Your task to perform on an android device: Go to Android settings Image 0: 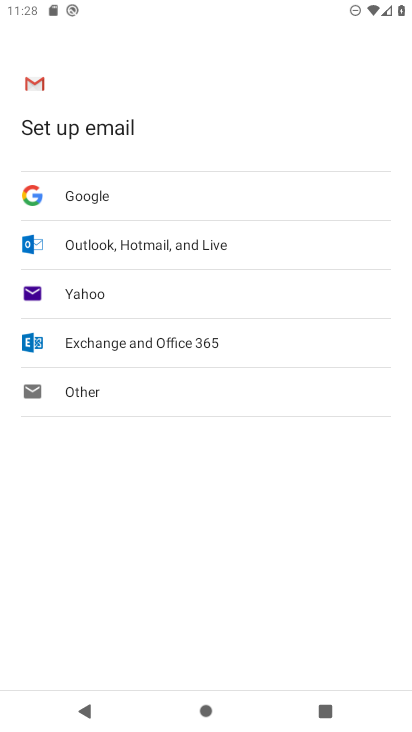
Step 0: press home button
Your task to perform on an android device: Go to Android settings Image 1: 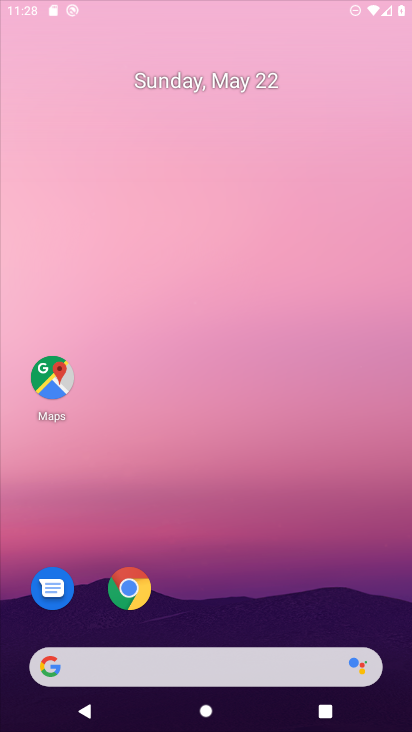
Step 1: click (289, 521)
Your task to perform on an android device: Go to Android settings Image 2: 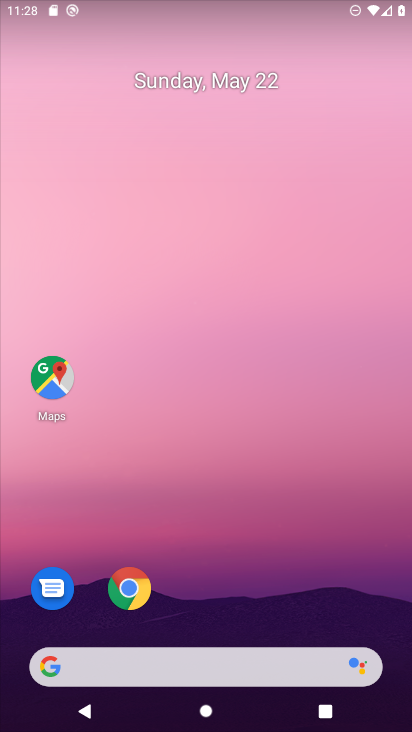
Step 2: drag from (188, 643) to (196, 251)
Your task to perform on an android device: Go to Android settings Image 3: 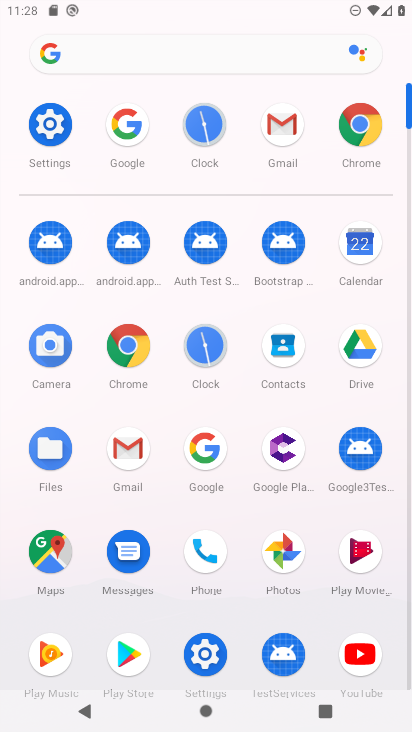
Step 3: click (55, 124)
Your task to perform on an android device: Go to Android settings Image 4: 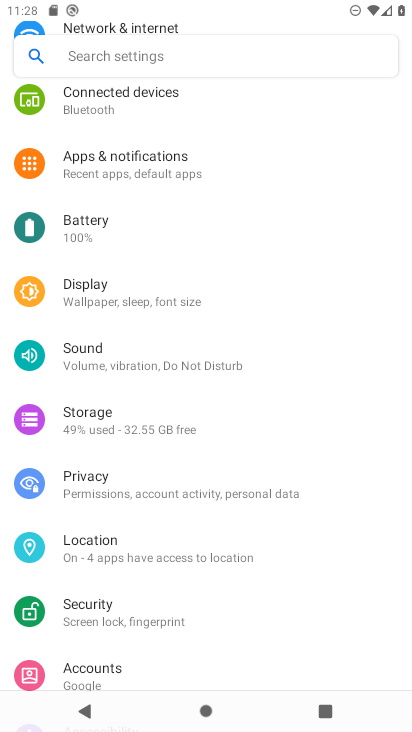
Step 4: task complete